Your task to perform on an android device: open chrome and create a bookmark for the current page Image 0: 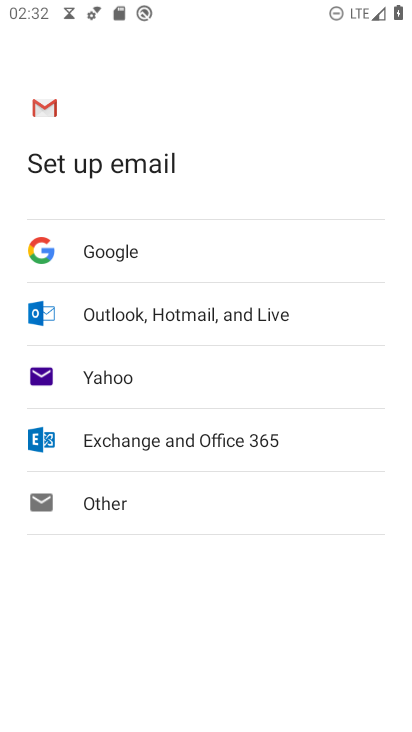
Step 0: press home button
Your task to perform on an android device: open chrome and create a bookmark for the current page Image 1: 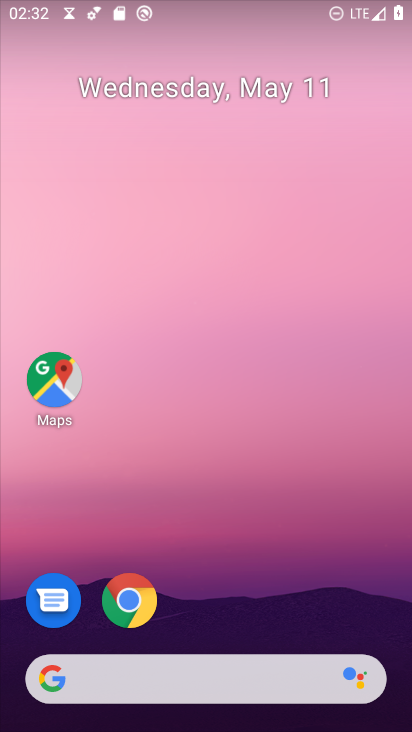
Step 1: drag from (248, 576) to (268, 231)
Your task to perform on an android device: open chrome and create a bookmark for the current page Image 2: 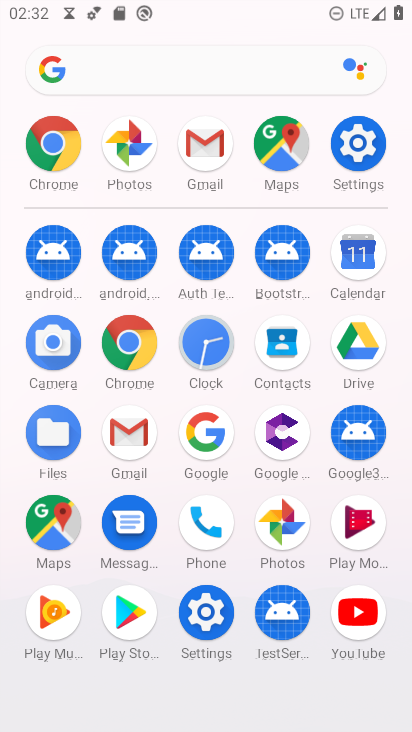
Step 2: click (132, 327)
Your task to perform on an android device: open chrome and create a bookmark for the current page Image 3: 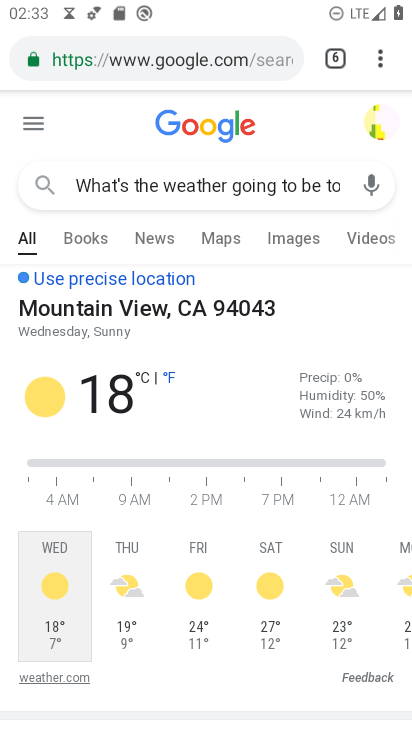
Step 3: click (367, 58)
Your task to perform on an android device: open chrome and create a bookmark for the current page Image 4: 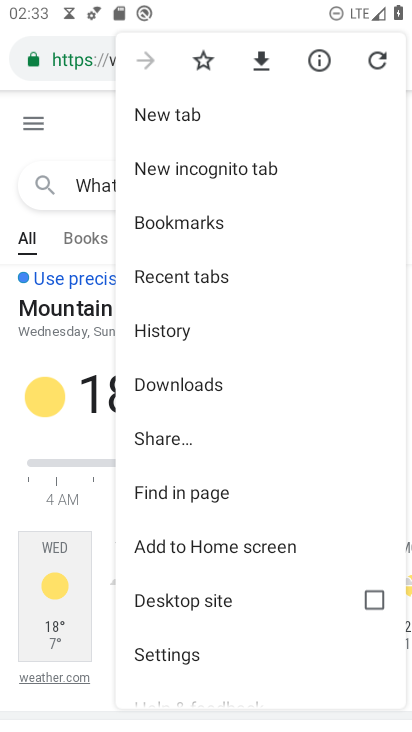
Step 4: click (197, 63)
Your task to perform on an android device: open chrome and create a bookmark for the current page Image 5: 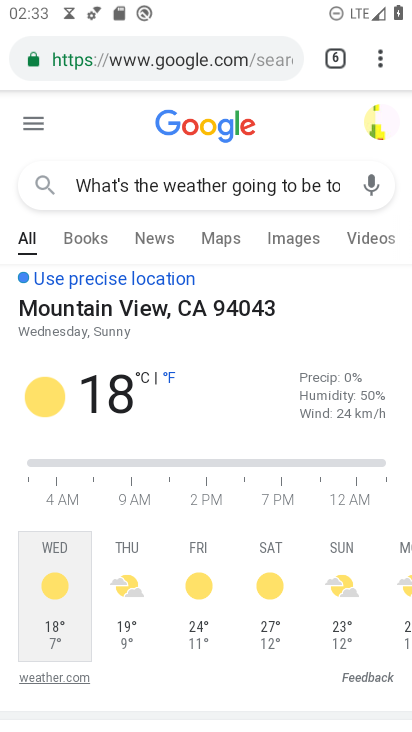
Step 5: task complete